Your task to perform on an android device: Open sound settings Image 0: 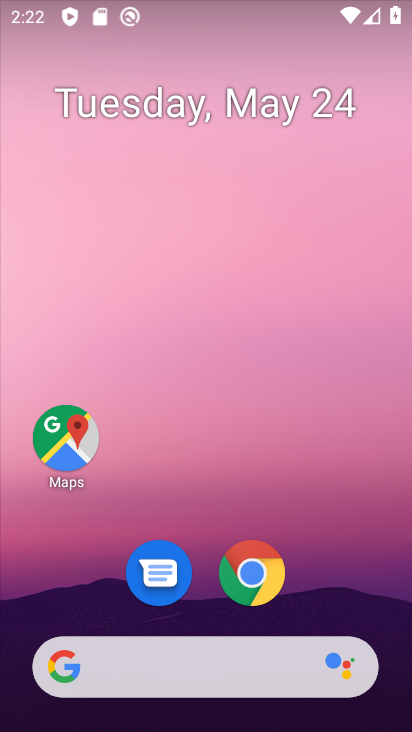
Step 0: drag from (315, 541) to (235, 16)
Your task to perform on an android device: Open sound settings Image 1: 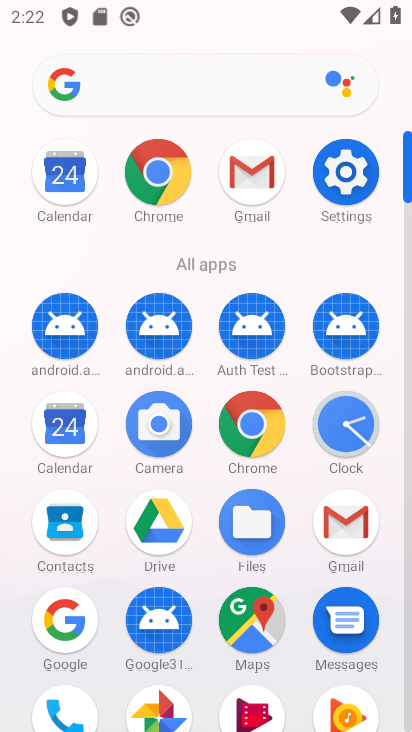
Step 1: click (344, 173)
Your task to perform on an android device: Open sound settings Image 2: 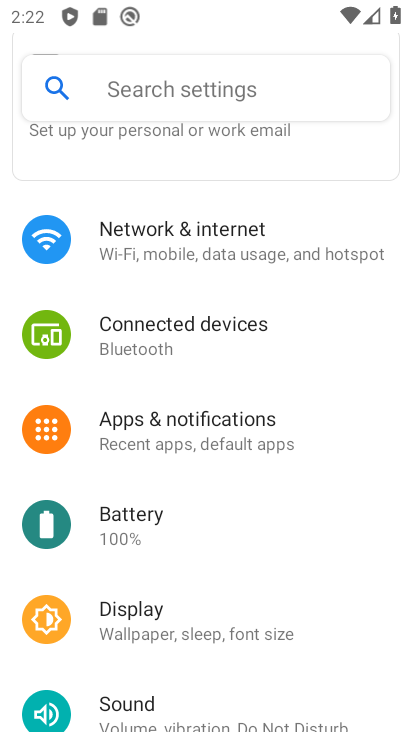
Step 2: drag from (280, 648) to (275, 286)
Your task to perform on an android device: Open sound settings Image 3: 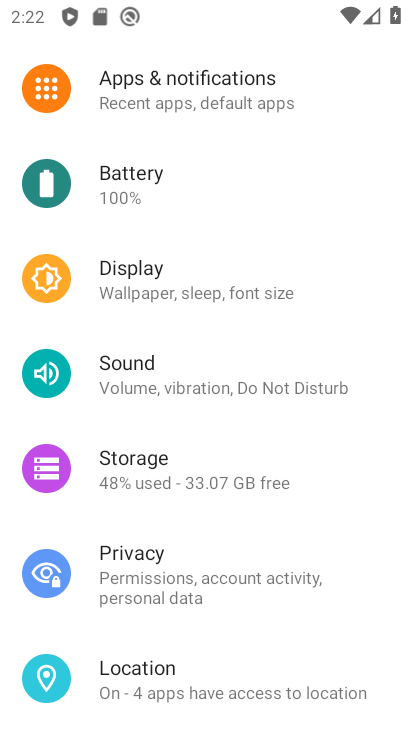
Step 3: click (167, 365)
Your task to perform on an android device: Open sound settings Image 4: 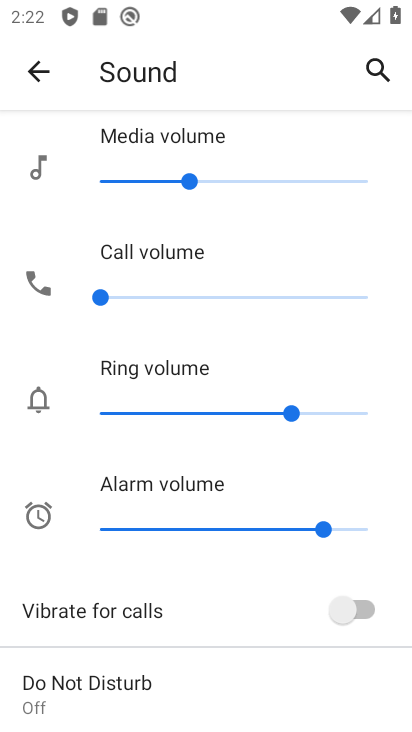
Step 4: drag from (190, 566) to (223, 182)
Your task to perform on an android device: Open sound settings Image 5: 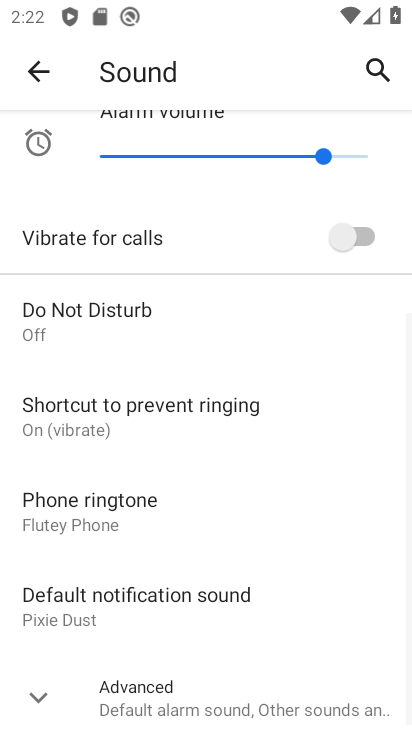
Step 5: drag from (207, 523) to (231, 200)
Your task to perform on an android device: Open sound settings Image 6: 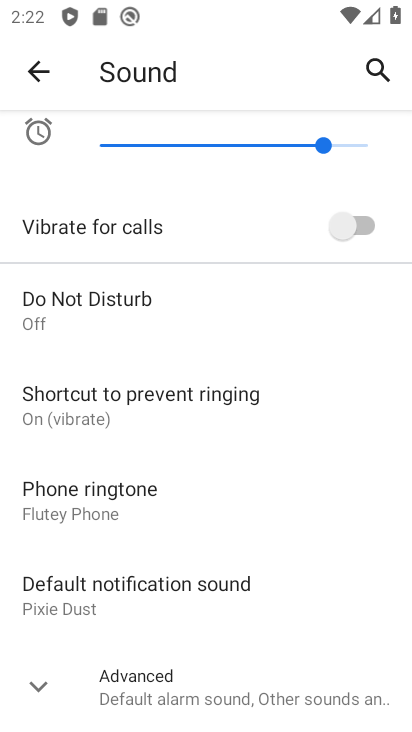
Step 6: drag from (219, 620) to (221, 208)
Your task to perform on an android device: Open sound settings Image 7: 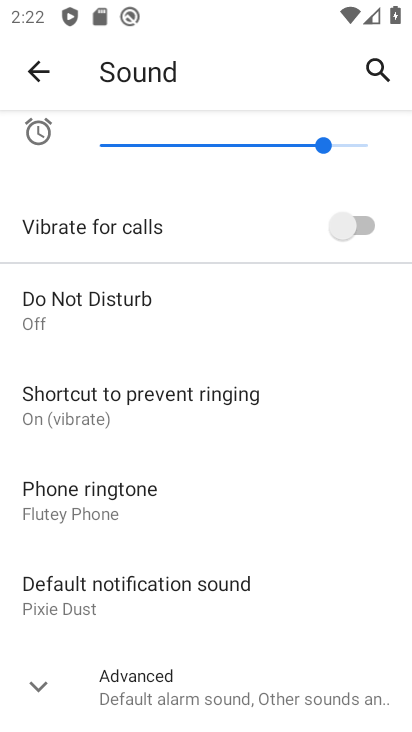
Step 7: click (28, 677)
Your task to perform on an android device: Open sound settings Image 8: 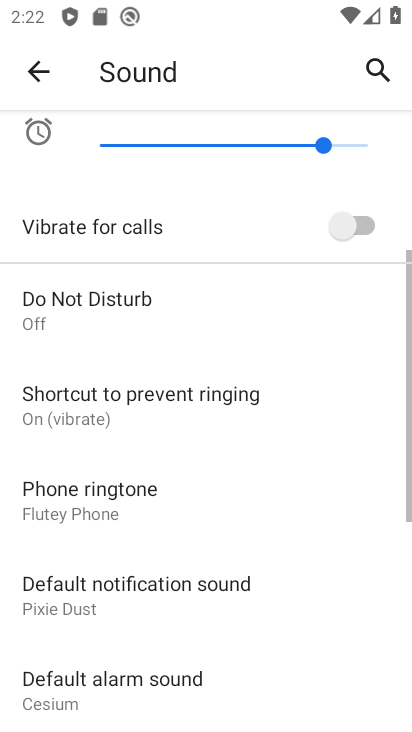
Step 8: drag from (195, 555) to (203, 210)
Your task to perform on an android device: Open sound settings Image 9: 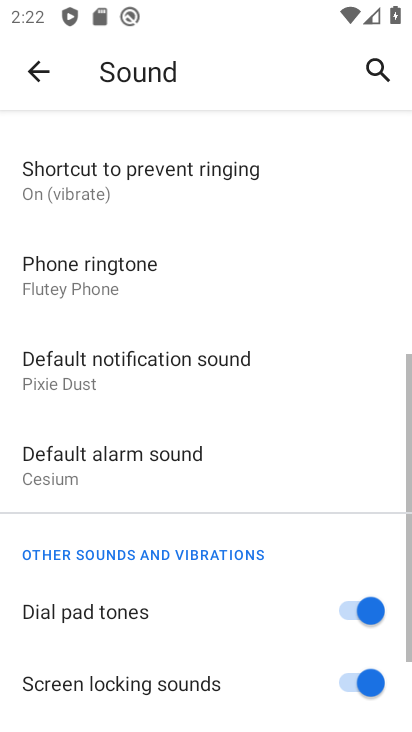
Step 9: click (206, 265)
Your task to perform on an android device: Open sound settings Image 10: 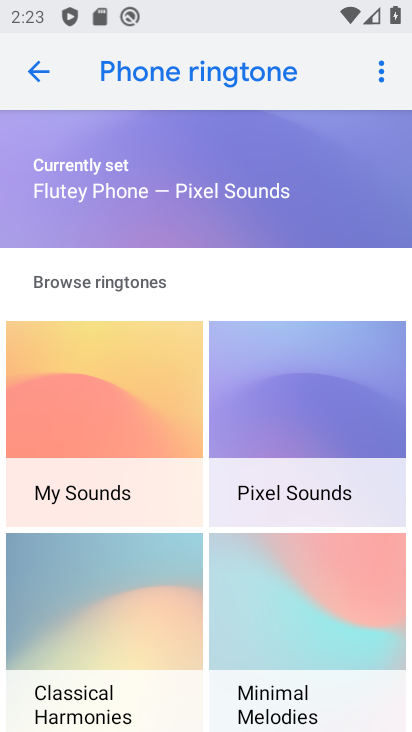
Step 10: click (32, 73)
Your task to perform on an android device: Open sound settings Image 11: 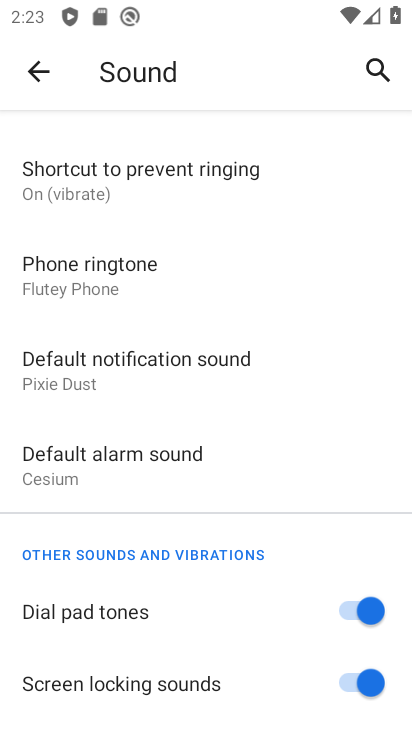
Step 11: drag from (234, 148) to (235, 610)
Your task to perform on an android device: Open sound settings Image 12: 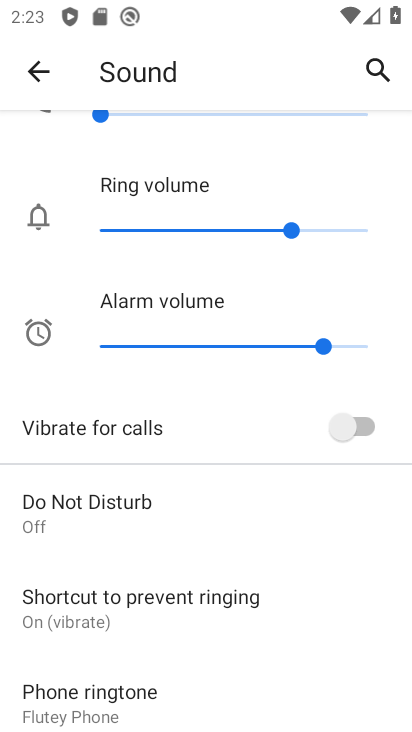
Step 12: drag from (201, 162) to (198, 591)
Your task to perform on an android device: Open sound settings Image 13: 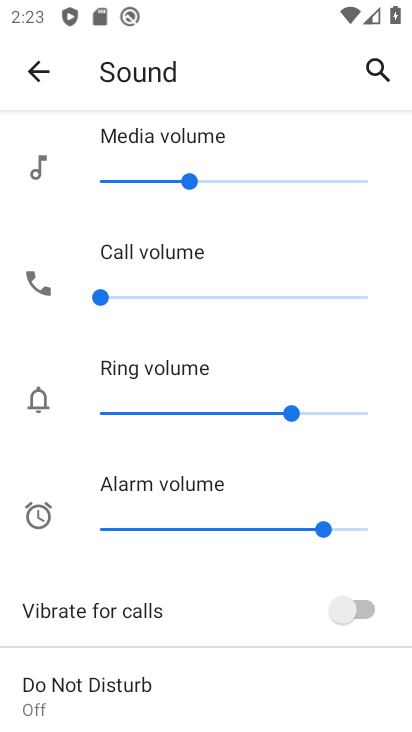
Step 13: click (26, 81)
Your task to perform on an android device: Open sound settings Image 14: 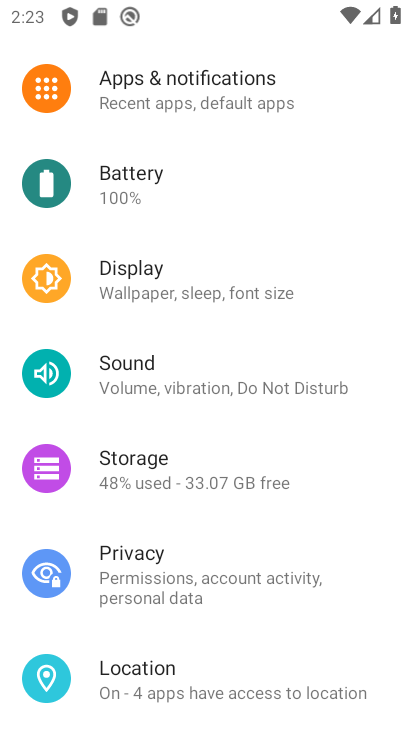
Step 14: click (171, 384)
Your task to perform on an android device: Open sound settings Image 15: 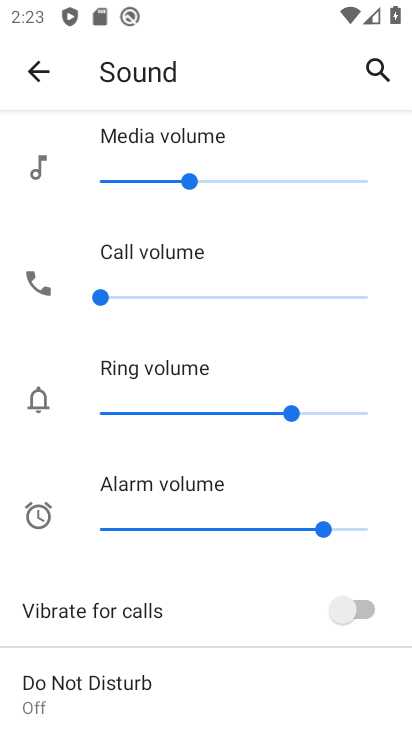
Step 15: drag from (201, 574) to (233, 243)
Your task to perform on an android device: Open sound settings Image 16: 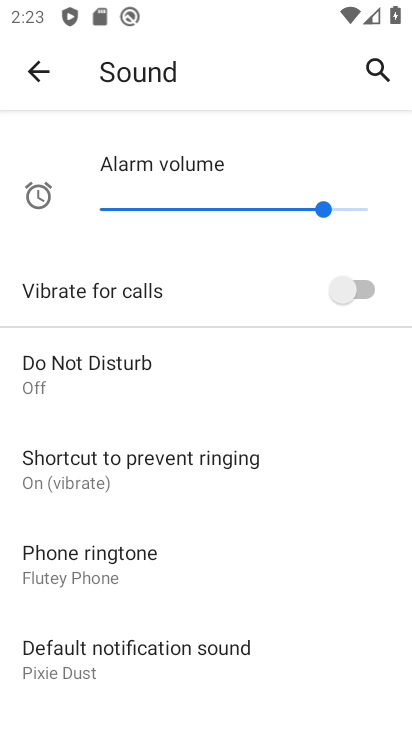
Step 16: drag from (186, 618) to (231, 234)
Your task to perform on an android device: Open sound settings Image 17: 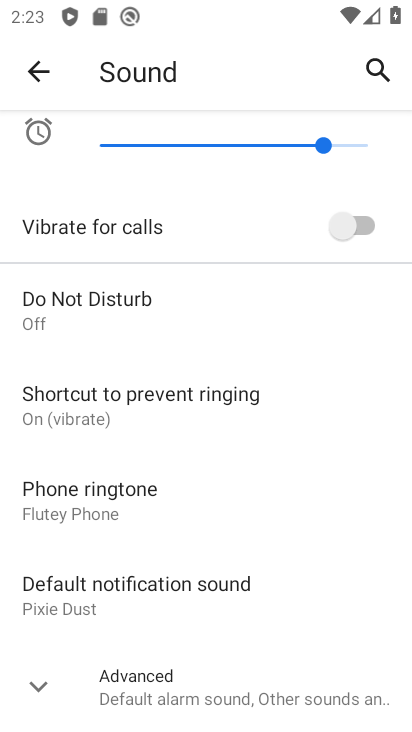
Step 17: click (41, 682)
Your task to perform on an android device: Open sound settings Image 18: 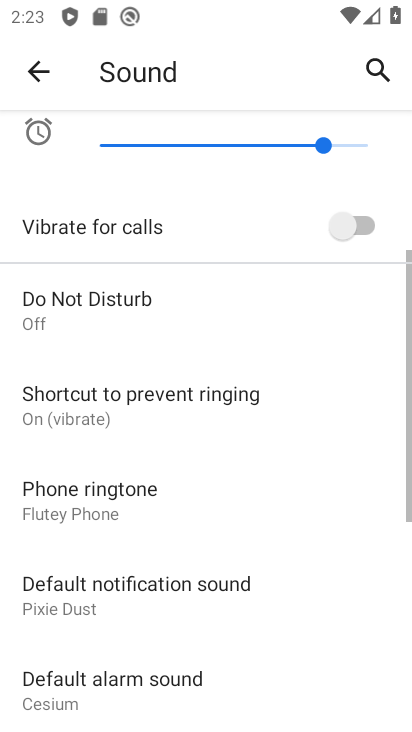
Step 18: task complete